Your task to perform on an android device: Go to Yahoo.com Image 0: 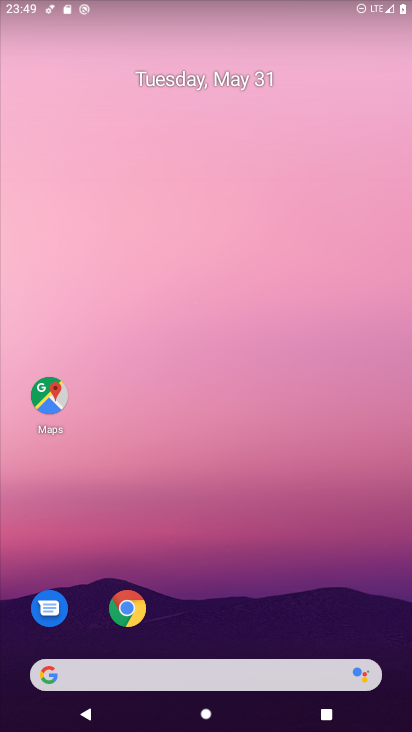
Step 0: press home button
Your task to perform on an android device: Go to Yahoo.com Image 1: 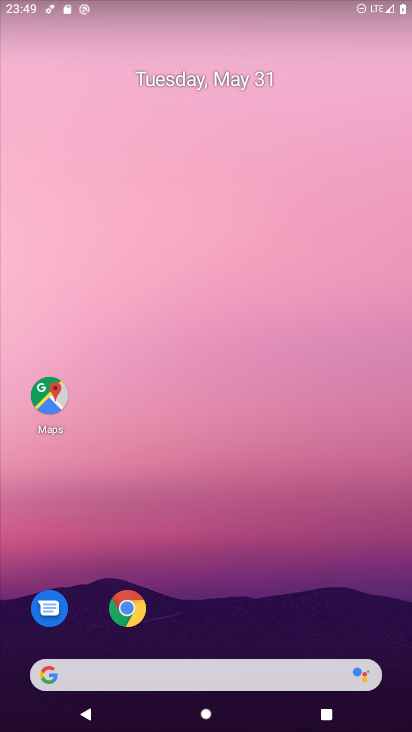
Step 1: click (150, 629)
Your task to perform on an android device: Go to Yahoo.com Image 2: 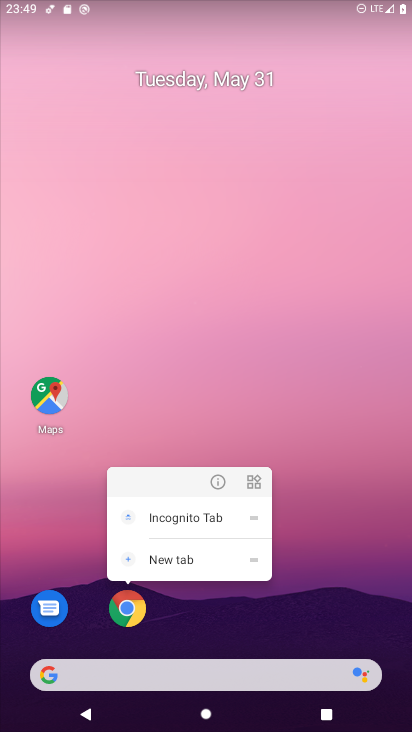
Step 2: click (145, 613)
Your task to perform on an android device: Go to Yahoo.com Image 3: 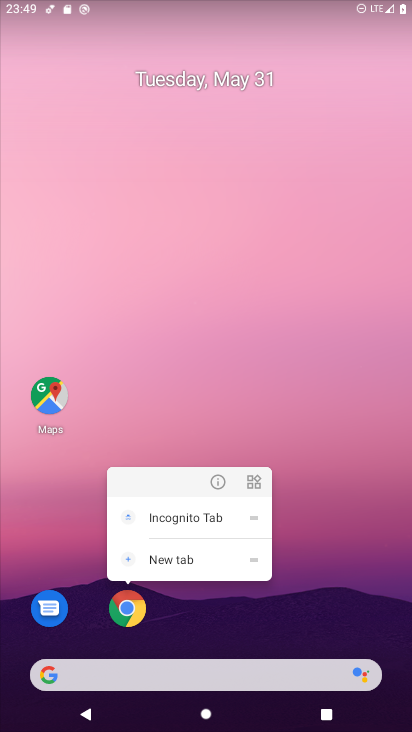
Step 3: click (145, 613)
Your task to perform on an android device: Go to Yahoo.com Image 4: 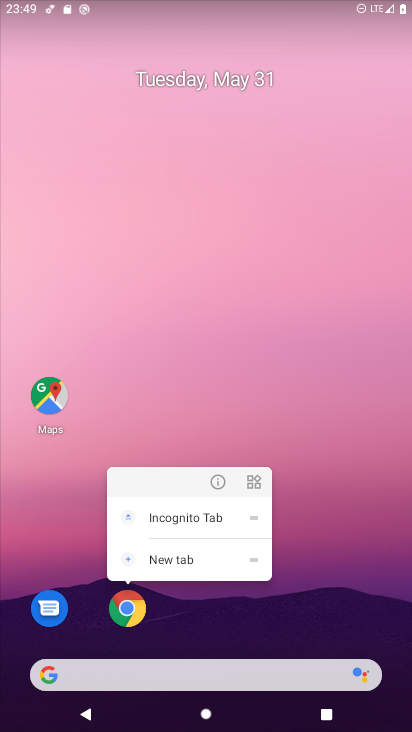
Step 4: click (146, 615)
Your task to perform on an android device: Go to Yahoo.com Image 5: 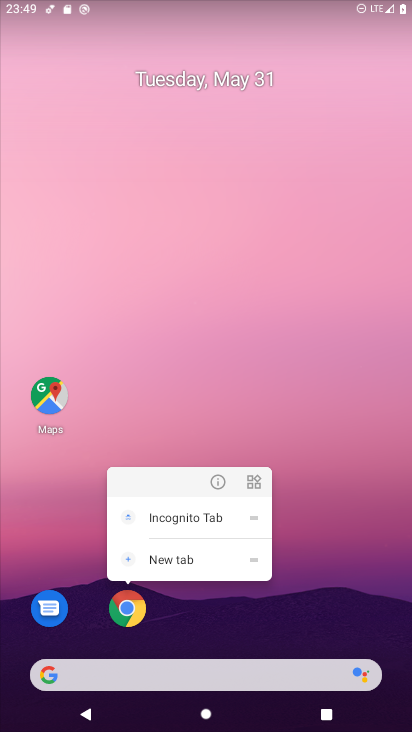
Step 5: click (130, 604)
Your task to perform on an android device: Go to Yahoo.com Image 6: 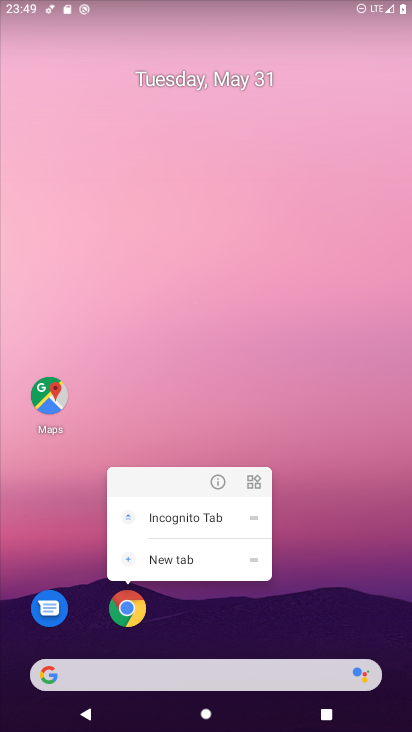
Step 6: click (138, 614)
Your task to perform on an android device: Go to Yahoo.com Image 7: 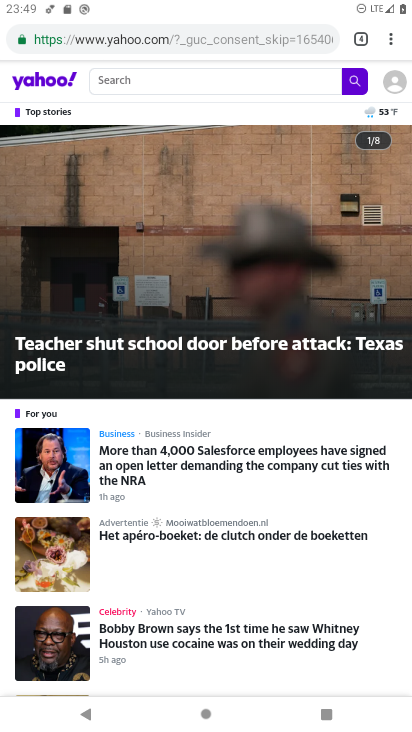
Step 7: task complete